Your task to perform on an android device: allow notifications from all sites in the chrome app Image 0: 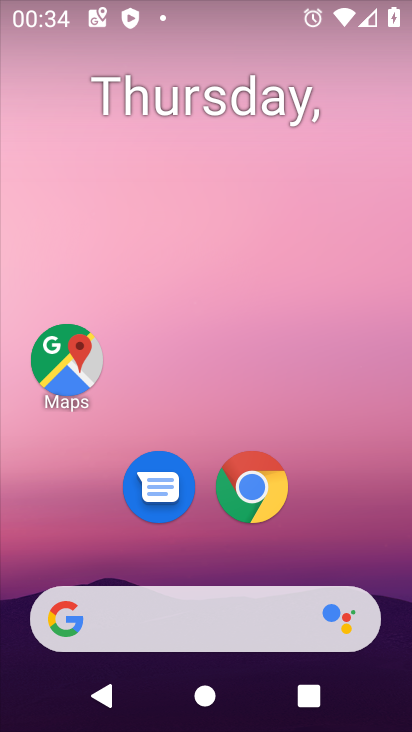
Step 0: click (260, 490)
Your task to perform on an android device: allow notifications from all sites in the chrome app Image 1: 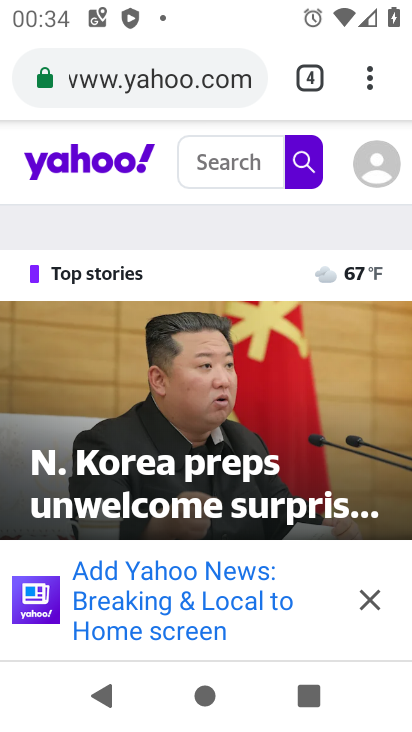
Step 1: click (371, 72)
Your task to perform on an android device: allow notifications from all sites in the chrome app Image 2: 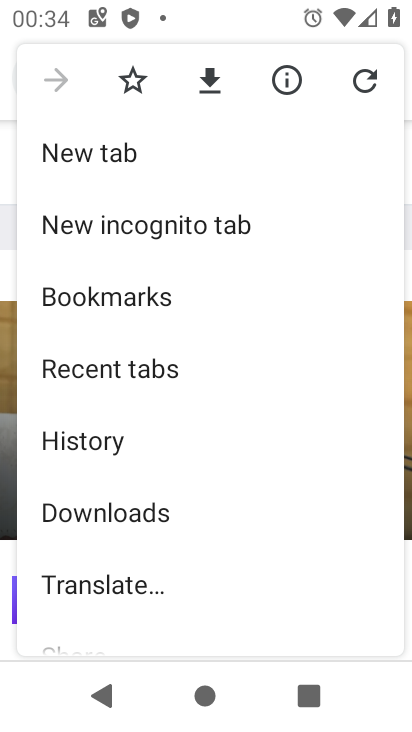
Step 2: drag from (228, 561) to (190, 127)
Your task to perform on an android device: allow notifications from all sites in the chrome app Image 3: 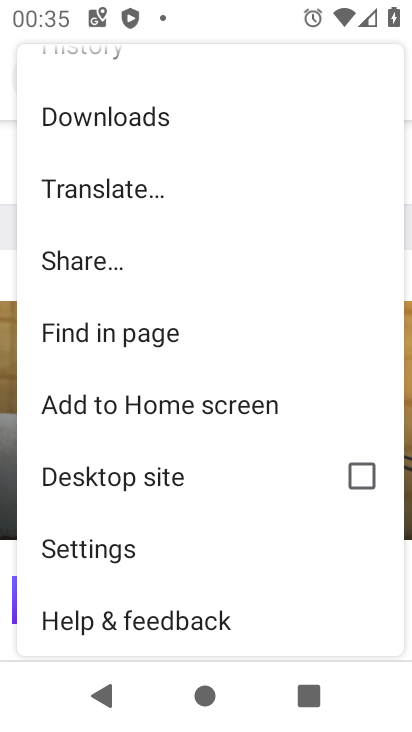
Step 3: click (82, 551)
Your task to perform on an android device: allow notifications from all sites in the chrome app Image 4: 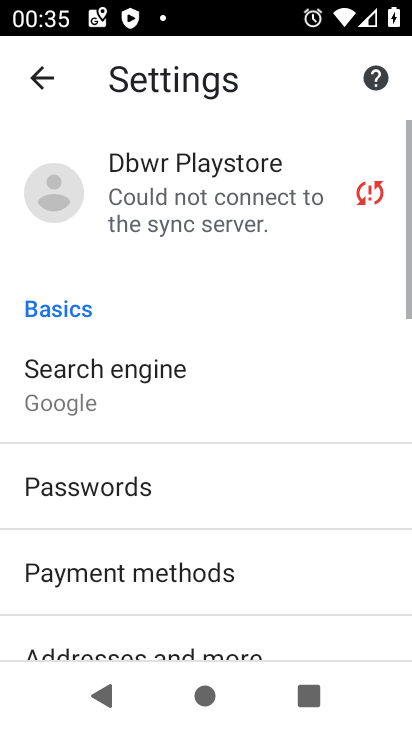
Step 4: drag from (216, 575) to (206, 127)
Your task to perform on an android device: allow notifications from all sites in the chrome app Image 5: 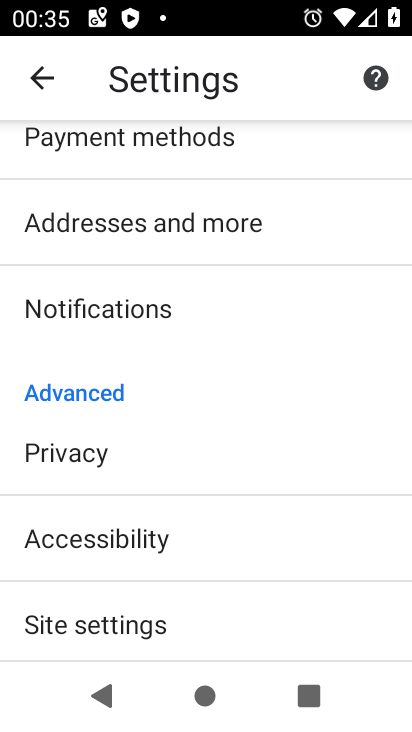
Step 5: drag from (184, 533) to (183, 289)
Your task to perform on an android device: allow notifications from all sites in the chrome app Image 6: 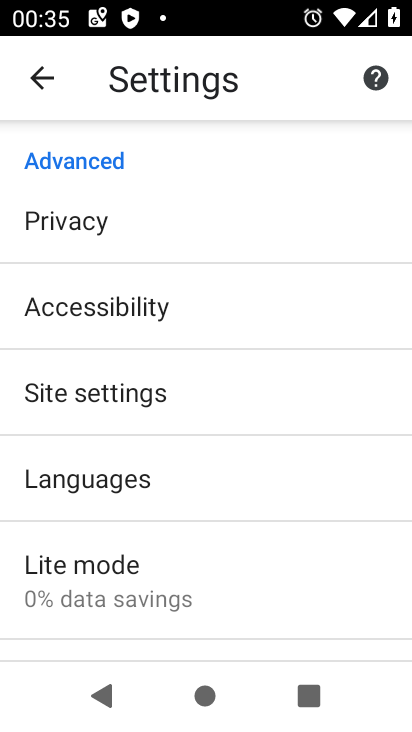
Step 6: click (80, 392)
Your task to perform on an android device: allow notifications from all sites in the chrome app Image 7: 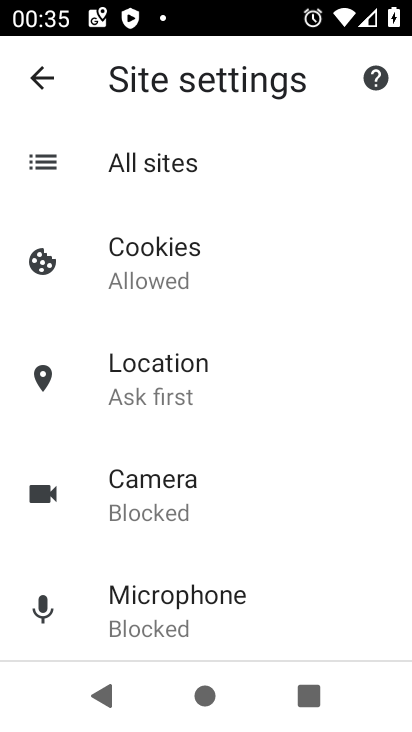
Step 7: drag from (183, 486) to (178, 260)
Your task to perform on an android device: allow notifications from all sites in the chrome app Image 8: 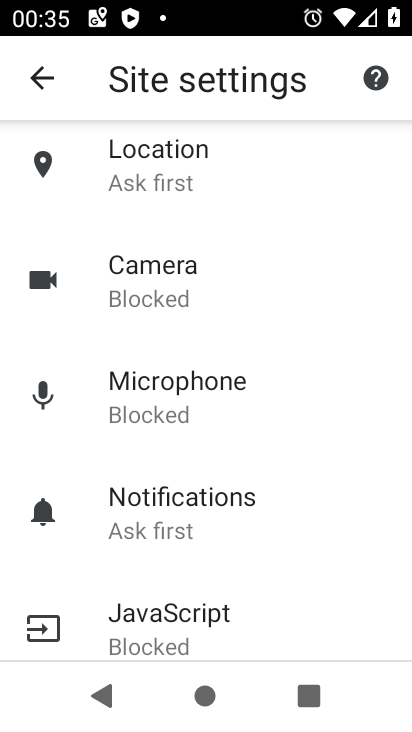
Step 8: click (132, 500)
Your task to perform on an android device: allow notifications from all sites in the chrome app Image 9: 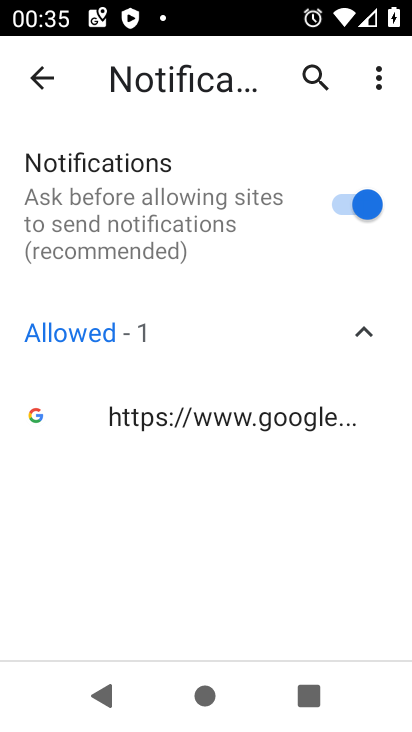
Step 9: task complete